Your task to perform on an android device: clear history in the chrome app Image 0: 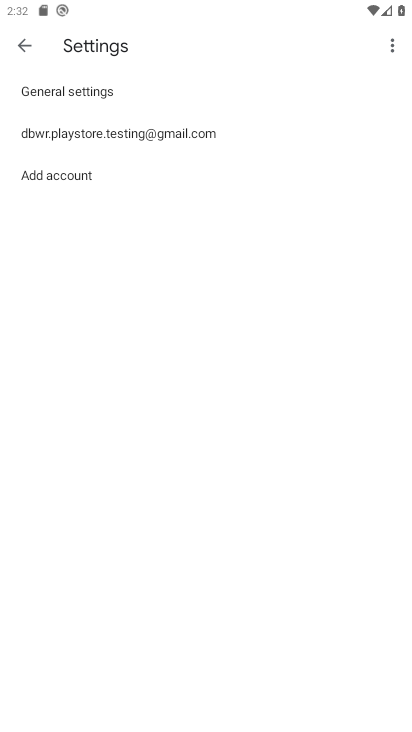
Step 0: press home button
Your task to perform on an android device: clear history in the chrome app Image 1: 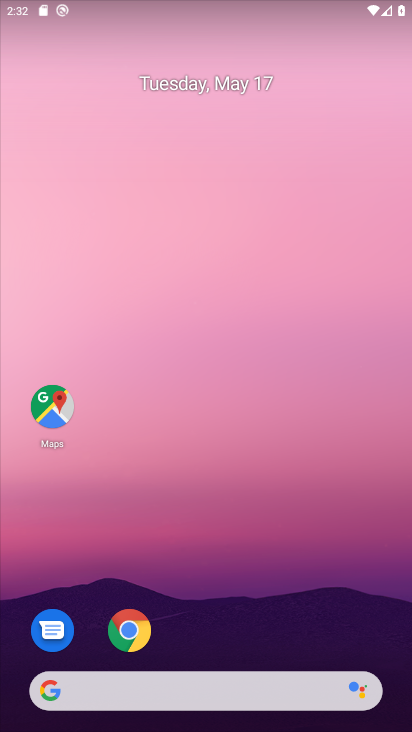
Step 1: click (120, 634)
Your task to perform on an android device: clear history in the chrome app Image 2: 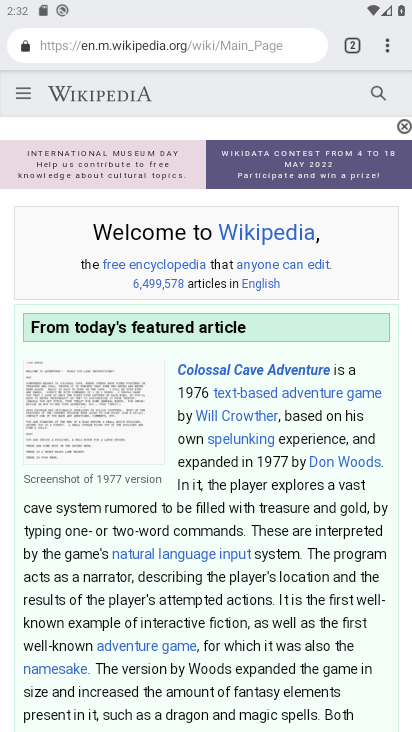
Step 2: click (396, 47)
Your task to perform on an android device: clear history in the chrome app Image 3: 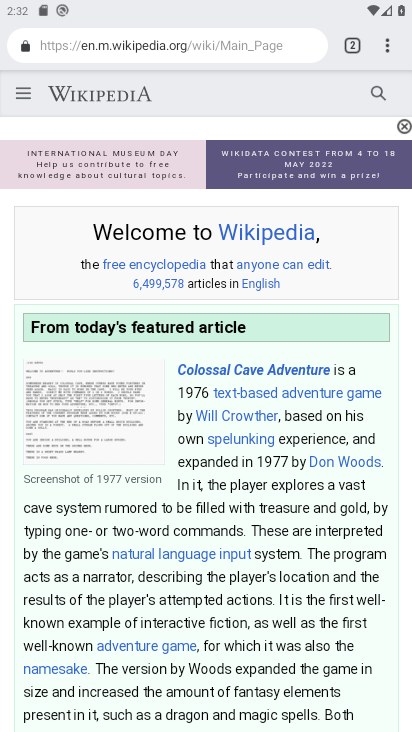
Step 3: click (396, 45)
Your task to perform on an android device: clear history in the chrome app Image 4: 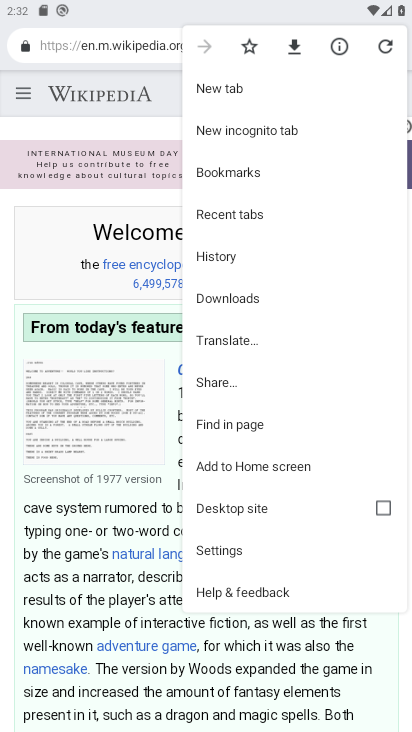
Step 4: click (226, 251)
Your task to perform on an android device: clear history in the chrome app Image 5: 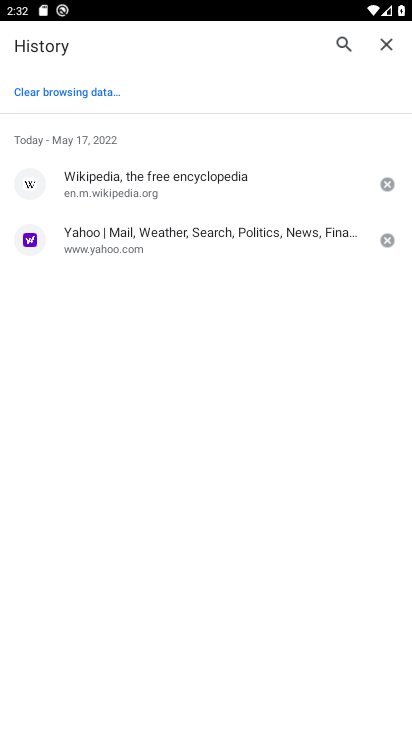
Step 5: click (84, 91)
Your task to perform on an android device: clear history in the chrome app Image 6: 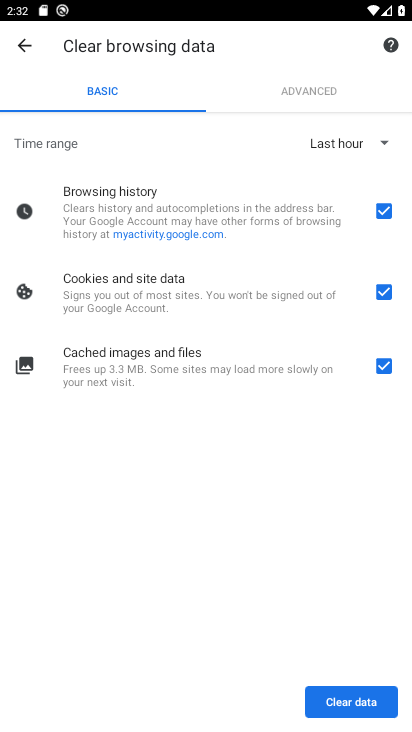
Step 6: click (343, 693)
Your task to perform on an android device: clear history in the chrome app Image 7: 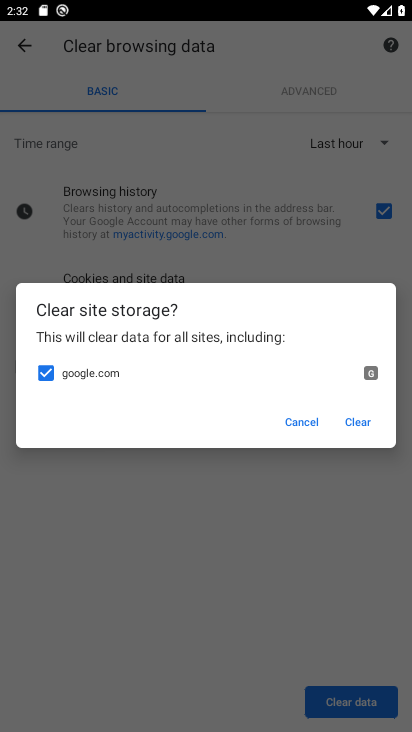
Step 7: click (361, 421)
Your task to perform on an android device: clear history in the chrome app Image 8: 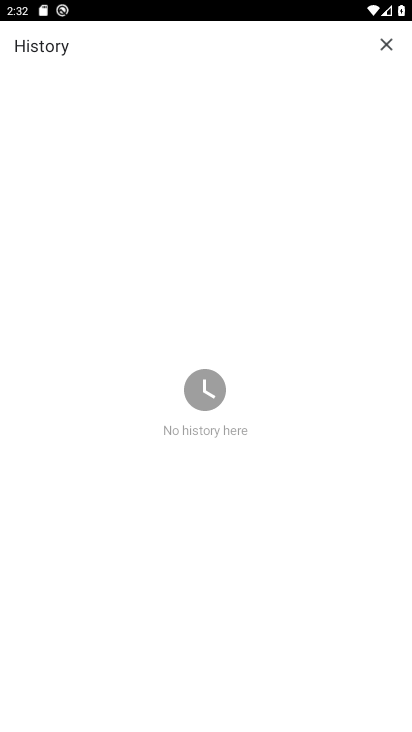
Step 8: task complete